Your task to perform on an android device: read, delete, or share a saved page in the chrome app Image 0: 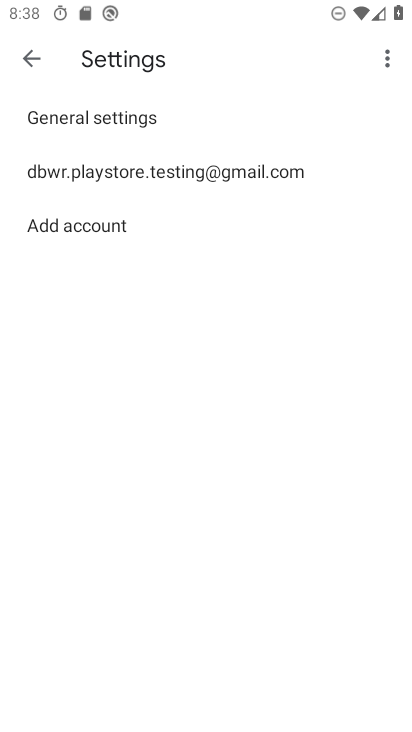
Step 0: press home button
Your task to perform on an android device: read, delete, or share a saved page in the chrome app Image 1: 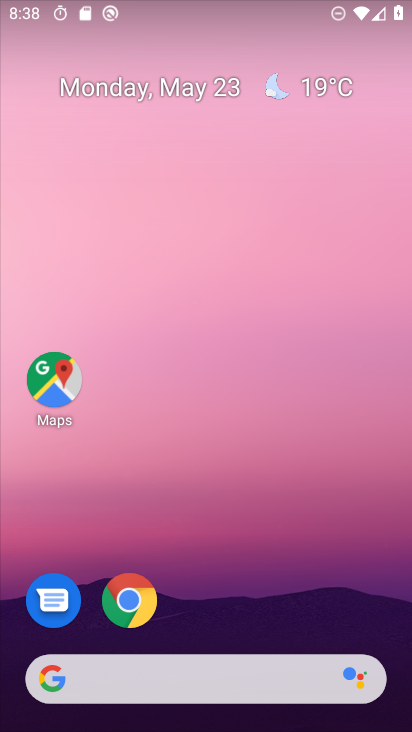
Step 1: click (136, 606)
Your task to perform on an android device: read, delete, or share a saved page in the chrome app Image 2: 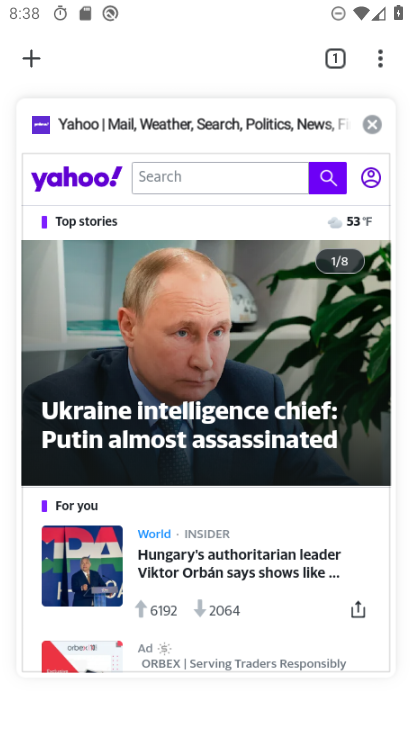
Step 2: click (176, 60)
Your task to perform on an android device: read, delete, or share a saved page in the chrome app Image 3: 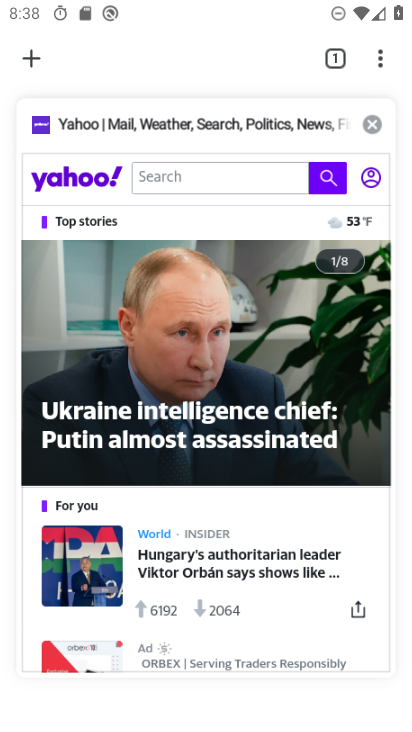
Step 3: click (296, 360)
Your task to perform on an android device: read, delete, or share a saved page in the chrome app Image 4: 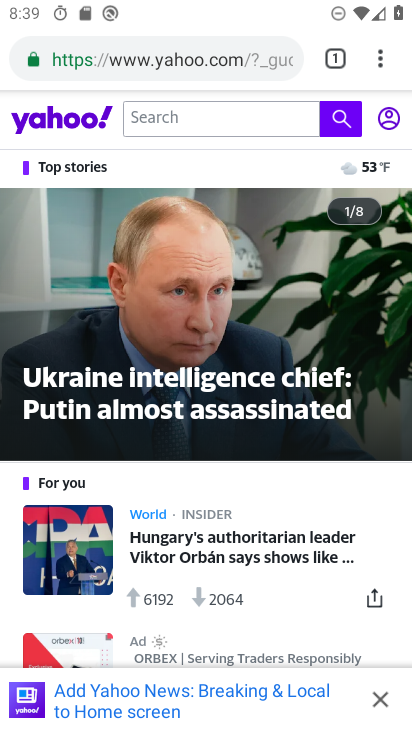
Step 4: click (337, 60)
Your task to perform on an android device: read, delete, or share a saved page in the chrome app Image 5: 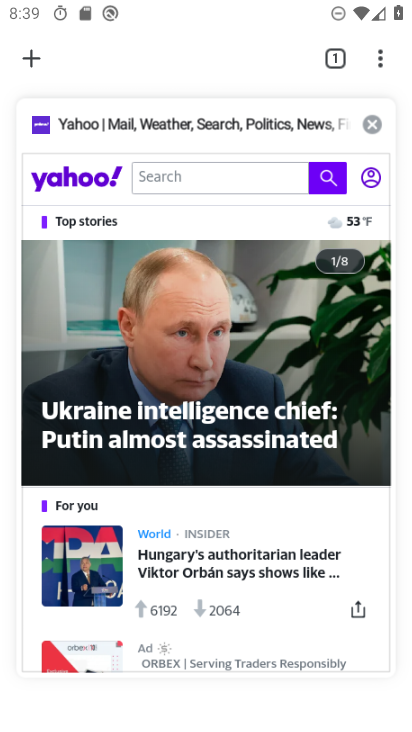
Step 5: click (34, 57)
Your task to perform on an android device: read, delete, or share a saved page in the chrome app Image 6: 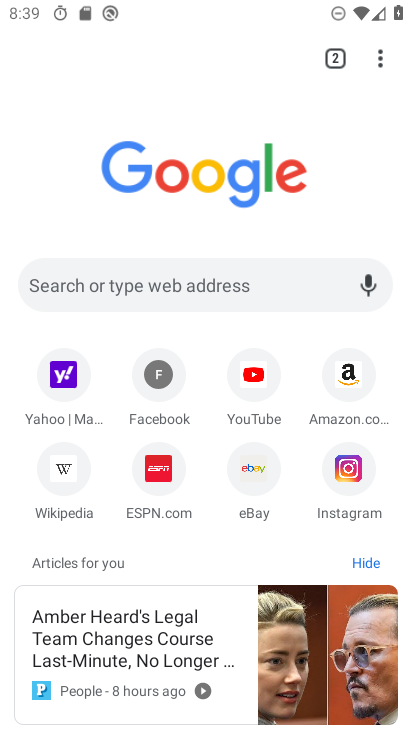
Step 6: click (177, 400)
Your task to perform on an android device: read, delete, or share a saved page in the chrome app Image 7: 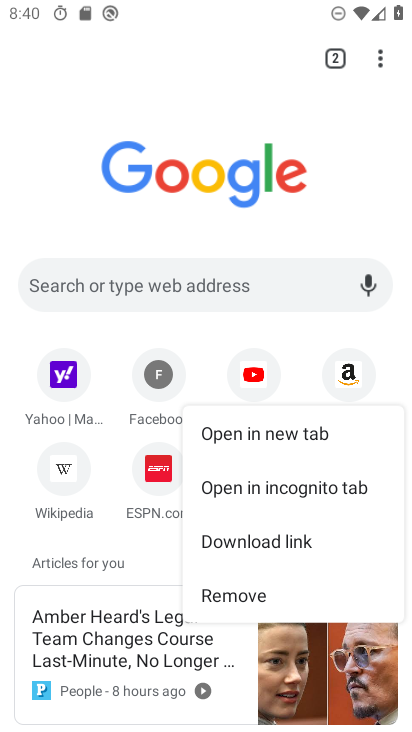
Step 7: click (241, 588)
Your task to perform on an android device: read, delete, or share a saved page in the chrome app Image 8: 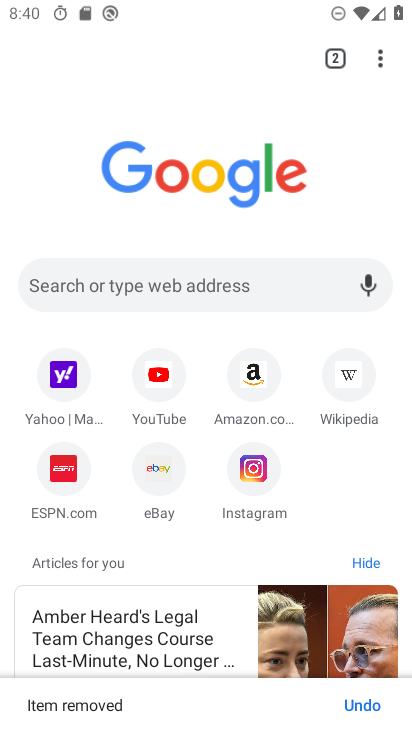
Step 8: task complete